Your task to perform on an android device: Open settings on Google Maps Image 0: 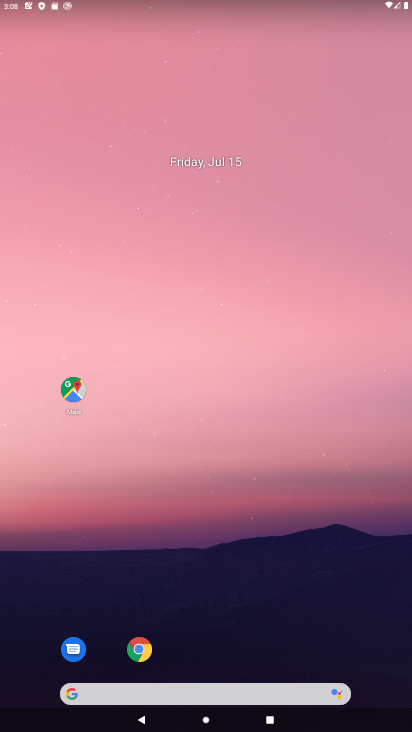
Step 0: drag from (312, 607) to (290, 151)
Your task to perform on an android device: Open settings on Google Maps Image 1: 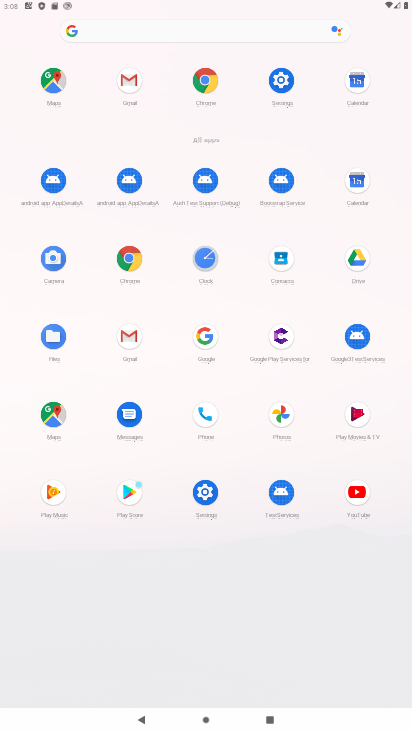
Step 1: click (53, 416)
Your task to perform on an android device: Open settings on Google Maps Image 2: 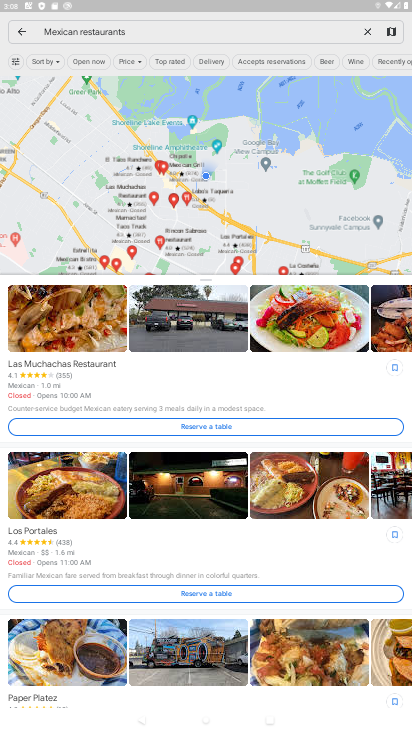
Step 2: click (22, 30)
Your task to perform on an android device: Open settings on Google Maps Image 3: 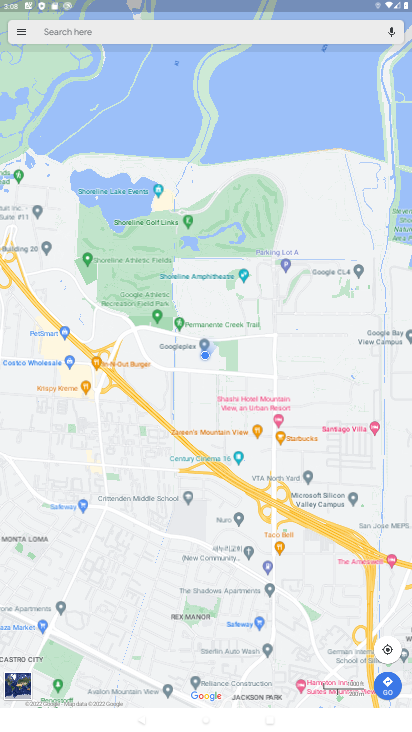
Step 3: click (22, 30)
Your task to perform on an android device: Open settings on Google Maps Image 4: 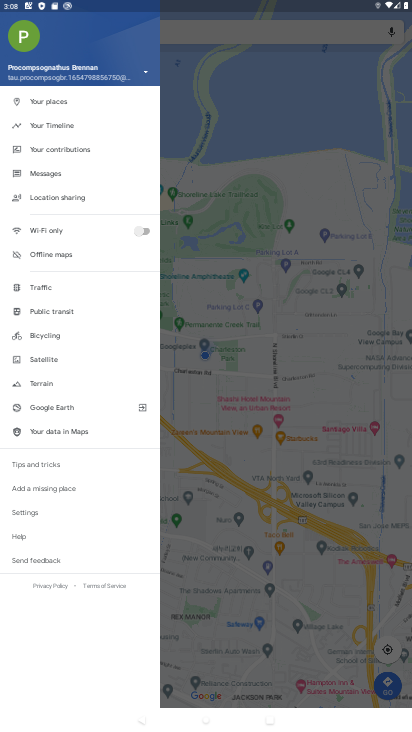
Step 4: click (32, 511)
Your task to perform on an android device: Open settings on Google Maps Image 5: 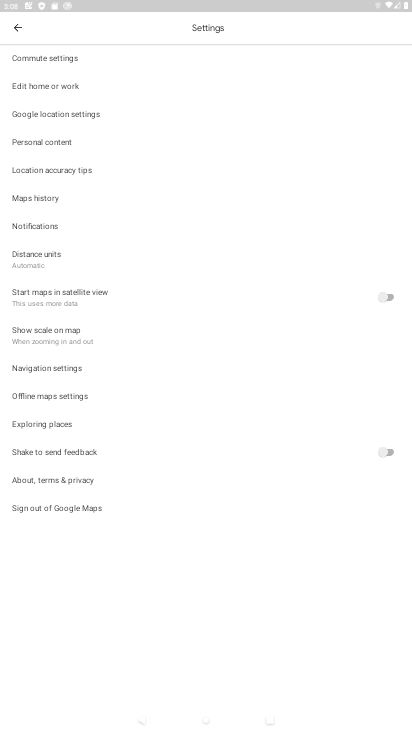
Step 5: task complete